Your task to perform on an android device: turn on the 24-hour format for clock Image 0: 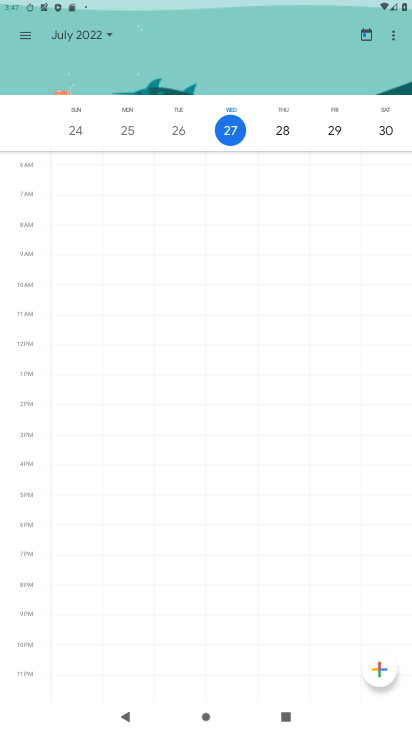
Step 0: press home button
Your task to perform on an android device: turn on the 24-hour format for clock Image 1: 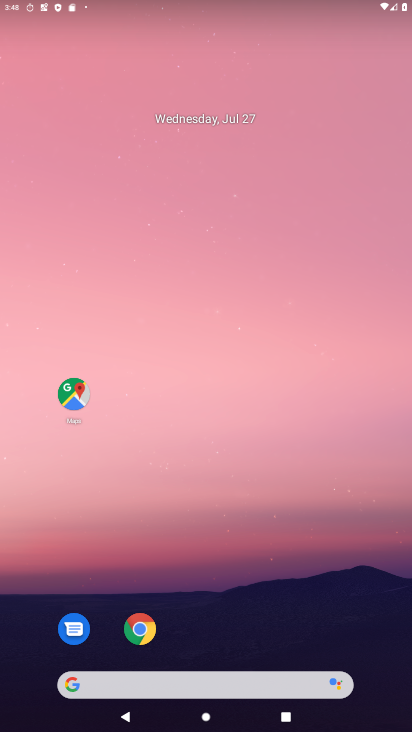
Step 1: drag from (272, 458) to (258, 77)
Your task to perform on an android device: turn on the 24-hour format for clock Image 2: 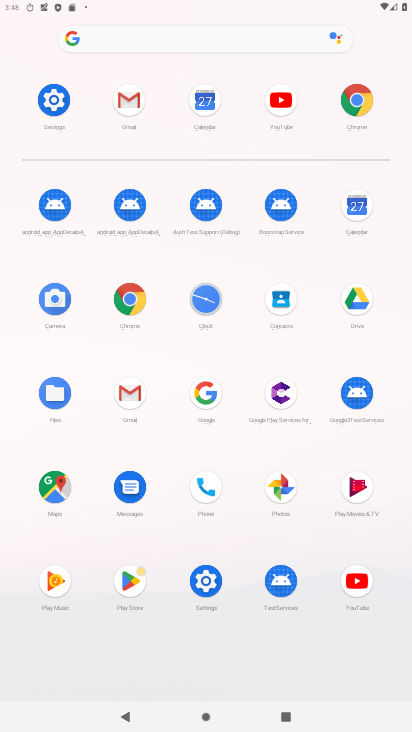
Step 2: click (199, 304)
Your task to perform on an android device: turn on the 24-hour format for clock Image 3: 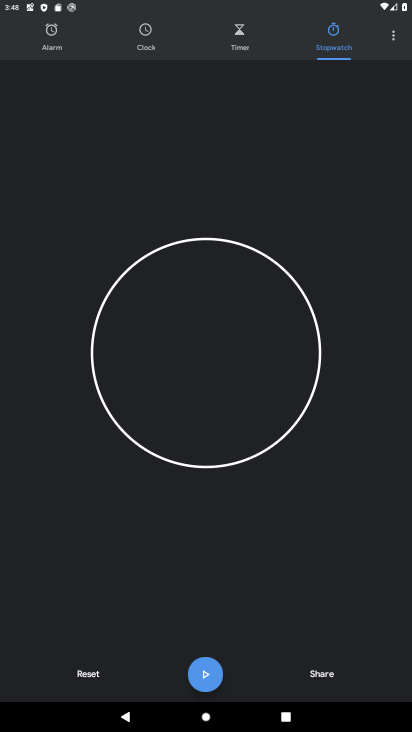
Step 3: click (398, 41)
Your task to perform on an android device: turn on the 24-hour format for clock Image 4: 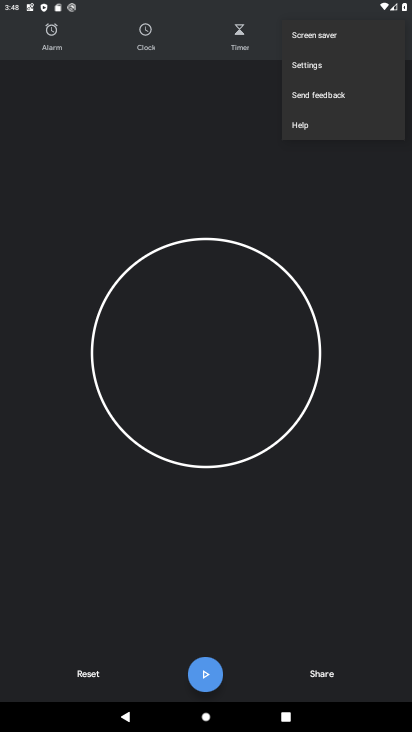
Step 4: click (310, 67)
Your task to perform on an android device: turn on the 24-hour format for clock Image 5: 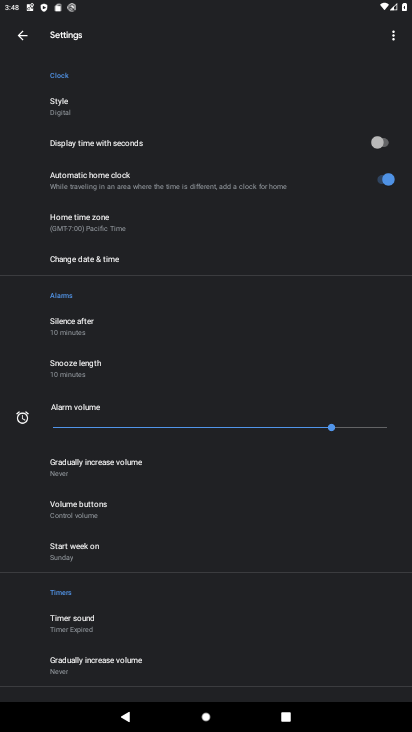
Step 5: click (102, 266)
Your task to perform on an android device: turn on the 24-hour format for clock Image 6: 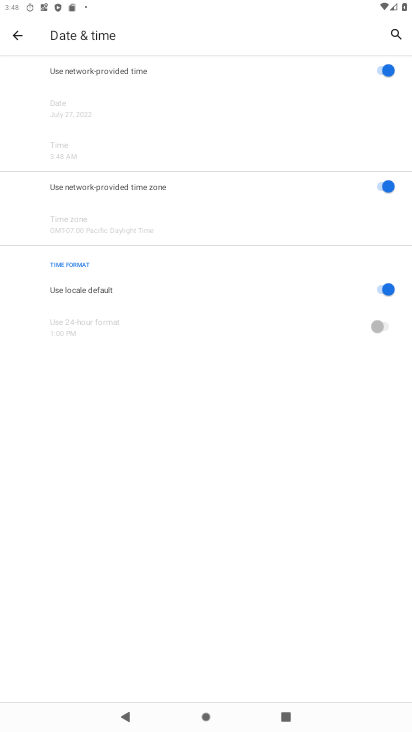
Step 6: click (377, 284)
Your task to perform on an android device: turn on the 24-hour format for clock Image 7: 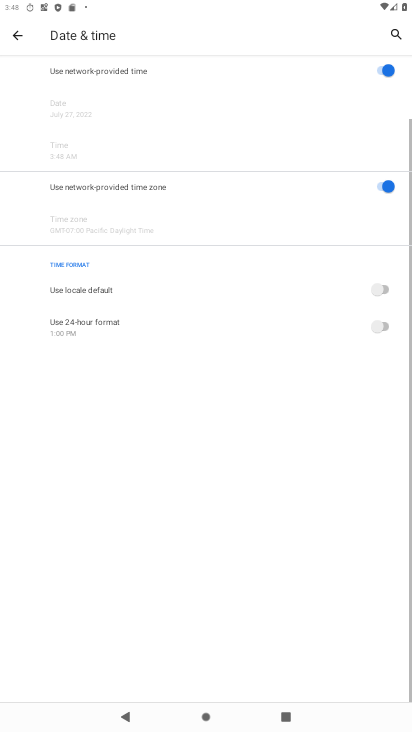
Step 7: click (386, 325)
Your task to perform on an android device: turn on the 24-hour format for clock Image 8: 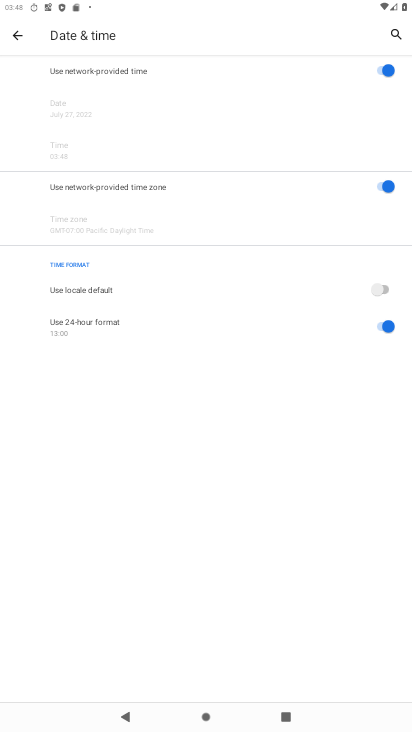
Step 8: task complete